Your task to perform on an android device: turn off improve location accuracy Image 0: 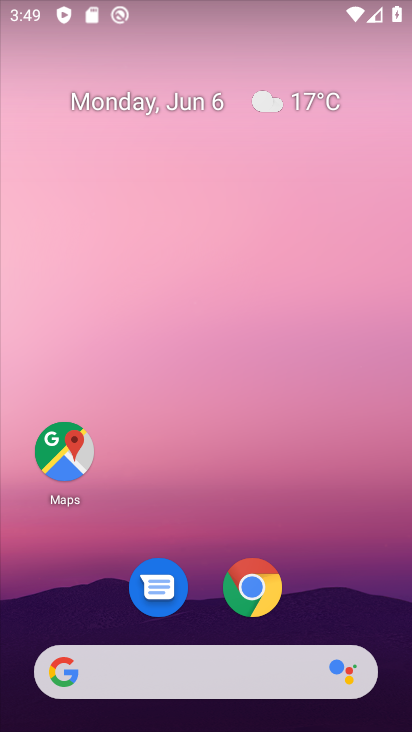
Step 0: drag from (75, 621) to (193, 54)
Your task to perform on an android device: turn off improve location accuracy Image 1: 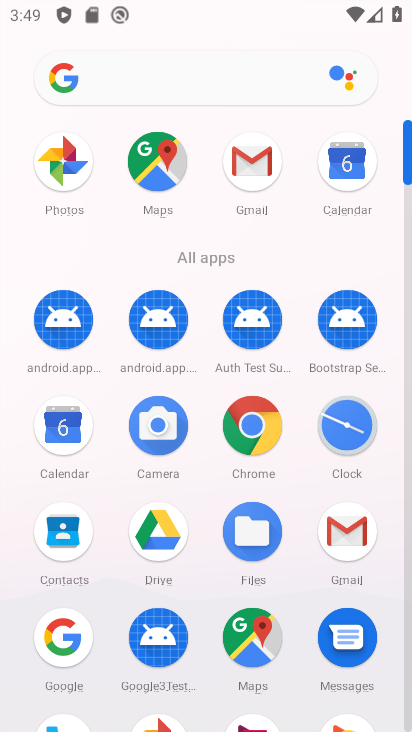
Step 1: drag from (251, 553) to (345, 179)
Your task to perform on an android device: turn off improve location accuracy Image 2: 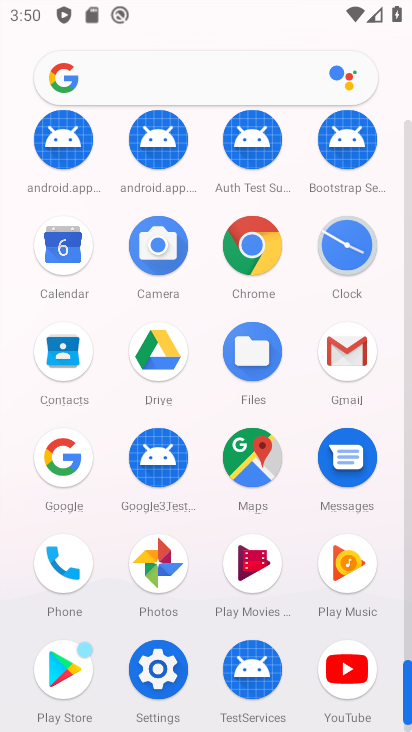
Step 2: drag from (265, 494) to (296, 348)
Your task to perform on an android device: turn off improve location accuracy Image 3: 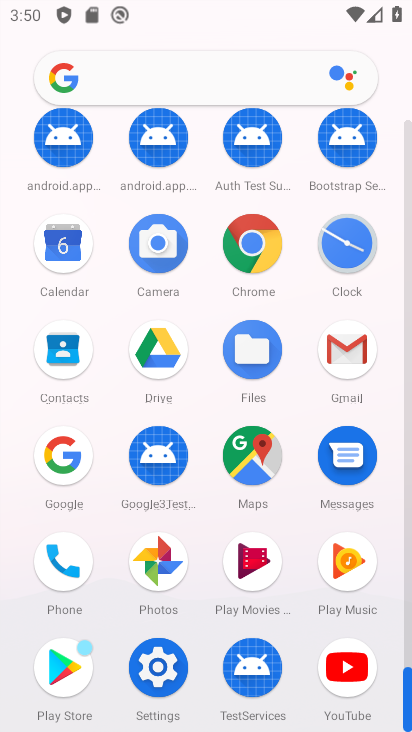
Step 3: click (158, 644)
Your task to perform on an android device: turn off improve location accuracy Image 4: 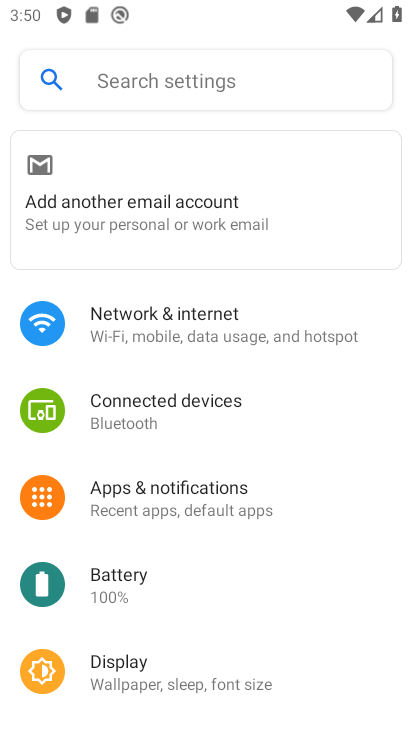
Step 4: drag from (143, 627) to (240, 230)
Your task to perform on an android device: turn off improve location accuracy Image 5: 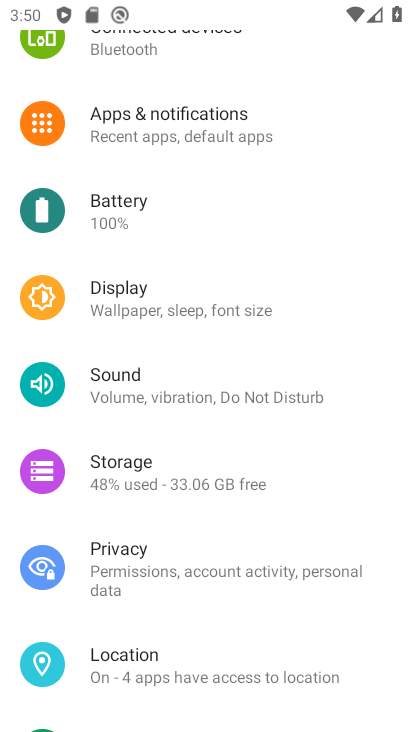
Step 5: drag from (184, 630) to (244, 350)
Your task to perform on an android device: turn off improve location accuracy Image 6: 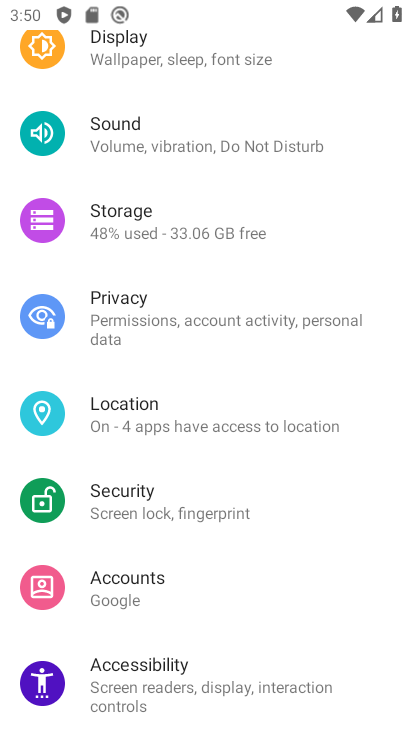
Step 6: click (176, 429)
Your task to perform on an android device: turn off improve location accuracy Image 7: 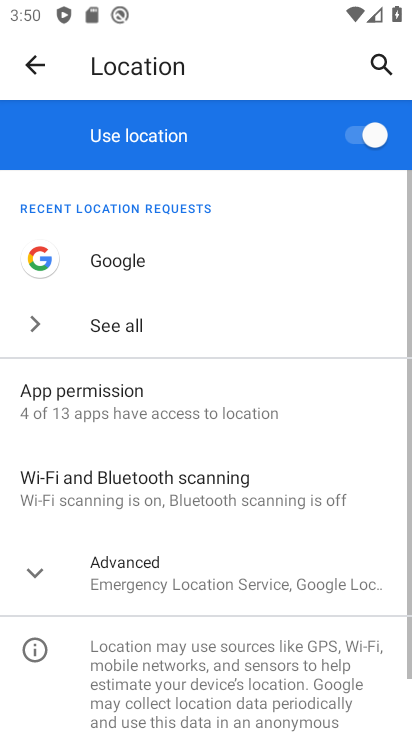
Step 7: click (199, 573)
Your task to perform on an android device: turn off improve location accuracy Image 8: 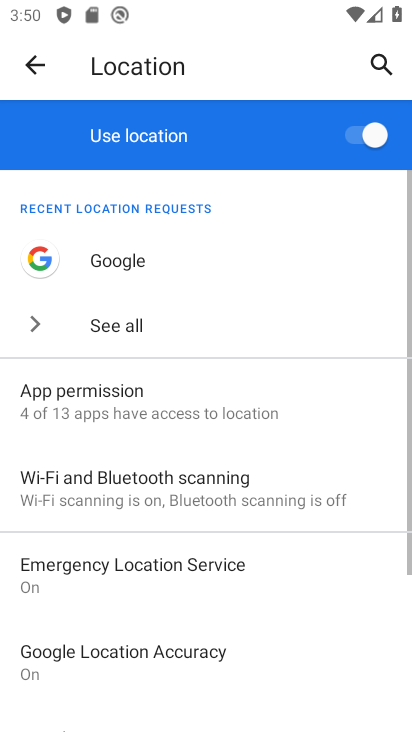
Step 8: drag from (189, 586) to (259, 220)
Your task to perform on an android device: turn off improve location accuracy Image 9: 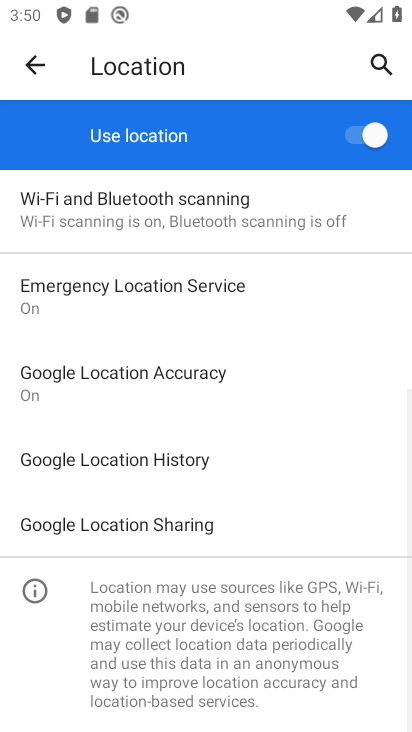
Step 9: click (229, 367)
Your task to perform on an android device: turn off improve location accuracy Image 10: 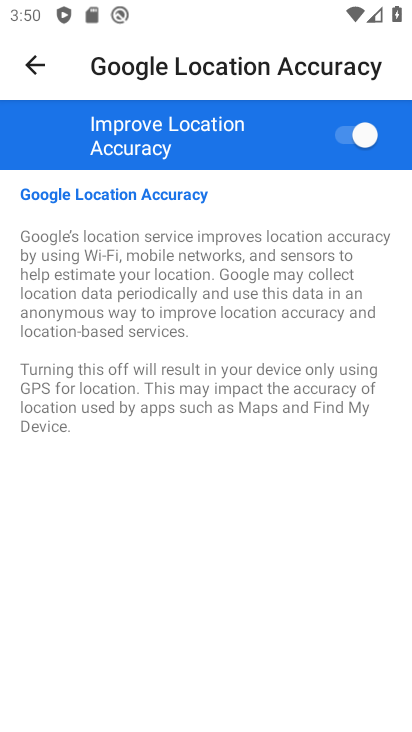
Step 10: click (345, 136)
Your task to perform on an android device: turn off improve location accuracy Image 11: 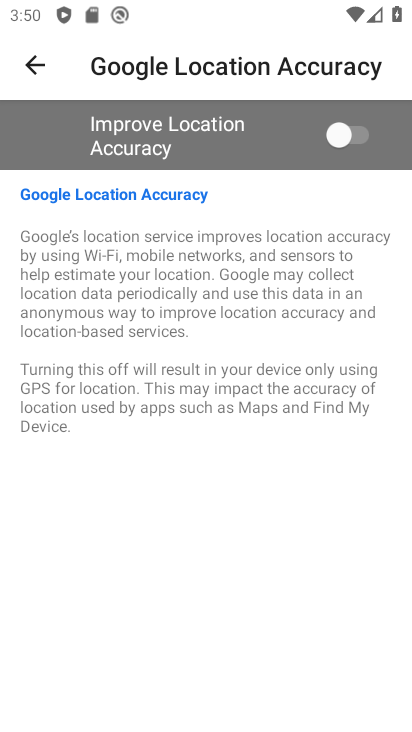
Step 11: task complete